Your task to perform on an android device: See recent photos Image 0: 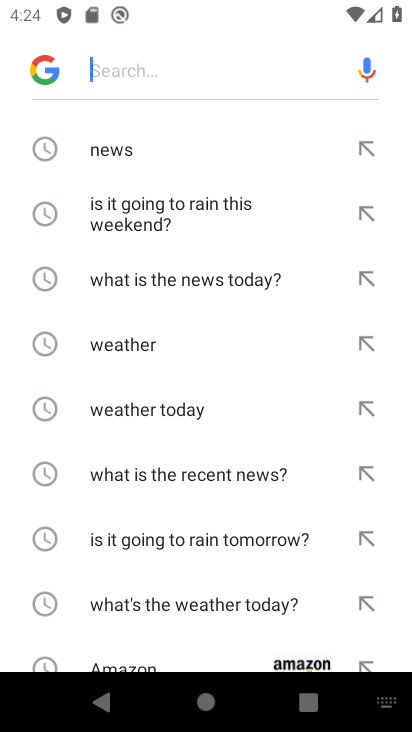
Step 0: press home button
Your task to perform on an android device: See recent photos Image 1: 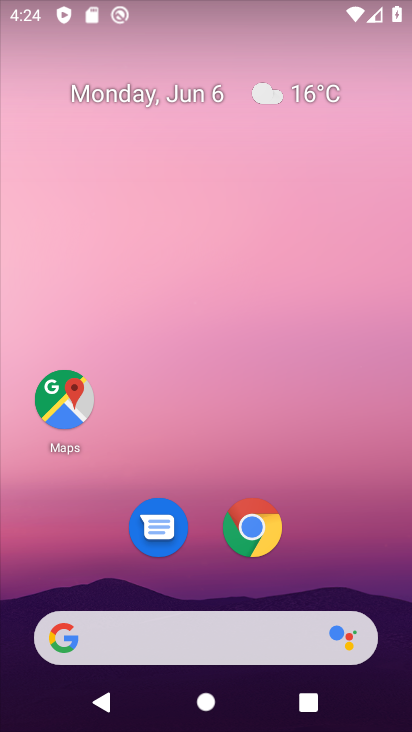
Step 1: drag from (191, 605) to (217, 157)
Your task to perform on an android device: See recent photos Image 2: 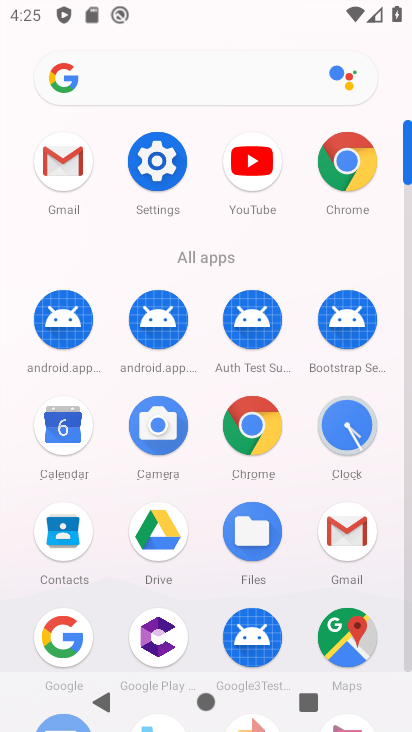
Step 2: drag from (219, 676) to (224, 374)
Your task to perform on an android device: See recent photos Image 3: 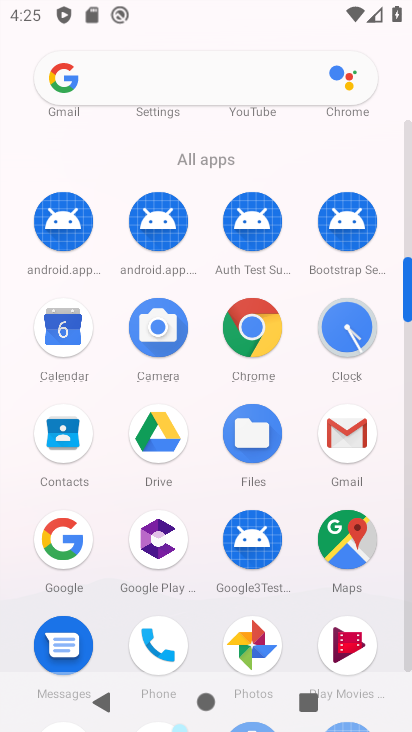
Step 3: click (257, 647)
Your task to perform on an android device: See recent photos Image 4: 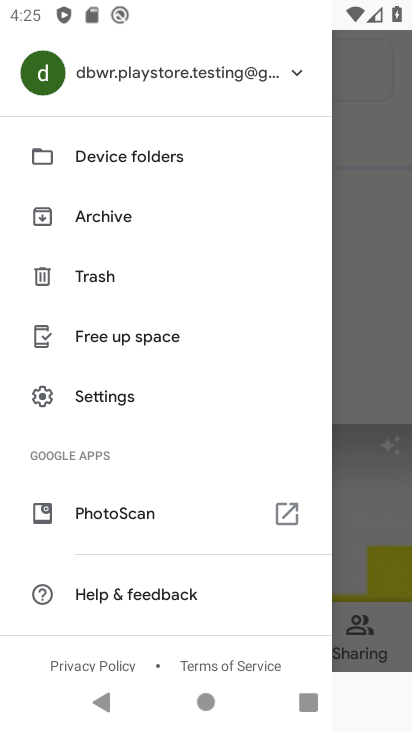
Step 4: click (364, 140)
Your task to perform on an android device: See recent photos Image 5: 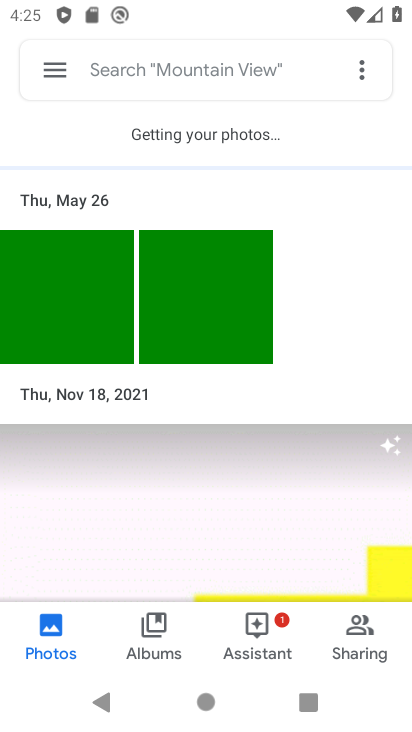
Step 5: click (110, 321)
Your task to perform on an android device: See recent photos Image 6: 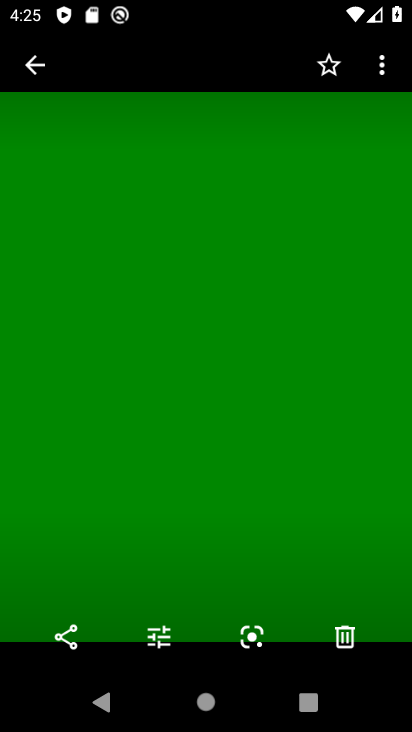
Step 6: task complete